Your task to perform on an android device: turn on the 12-hour format for clock Image 0: 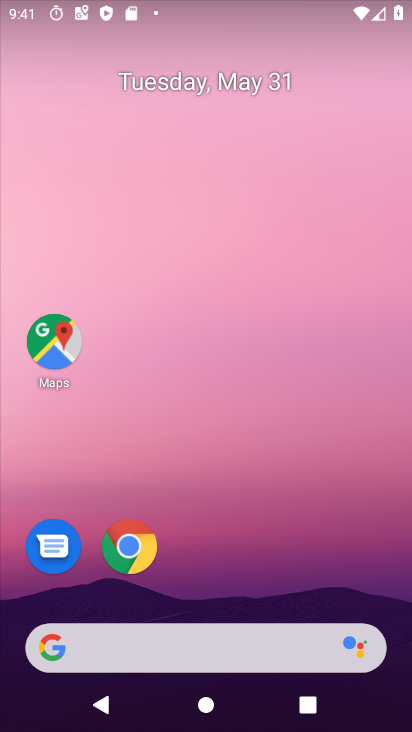
Step 0: drag from (209, 574) to (256, 73)
Your task to perform on an android device: turn on the 12-hour format for clock Image 1: 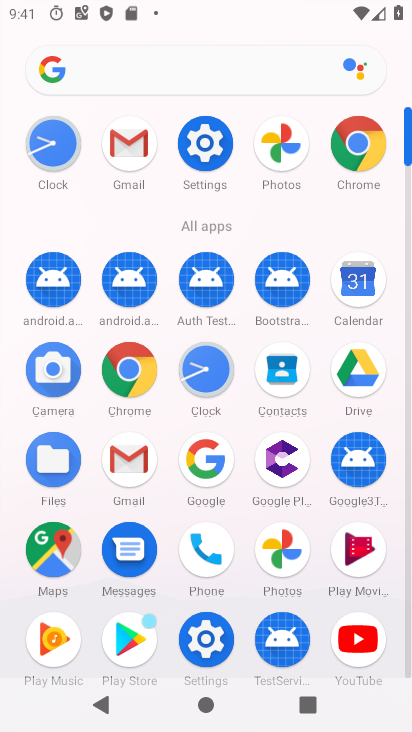
Step 1: click (201, 378)
Your task to perform on an android device: turn on the 12-hour format for clock Image 2: 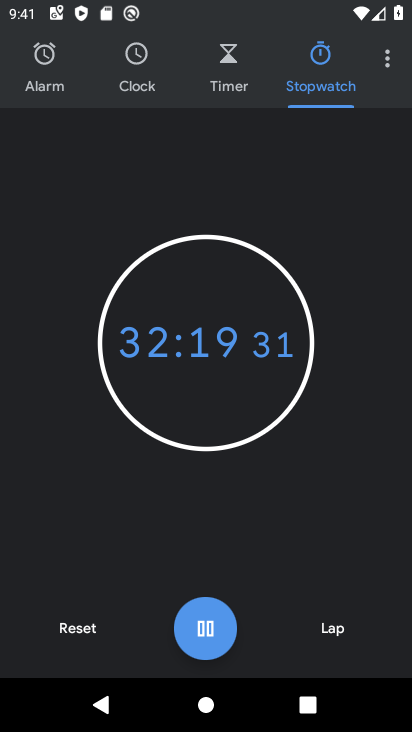
Step 2: click (394, 52)
Your task to perform on an android device: turn on the 12-hour format for clock Image 3: 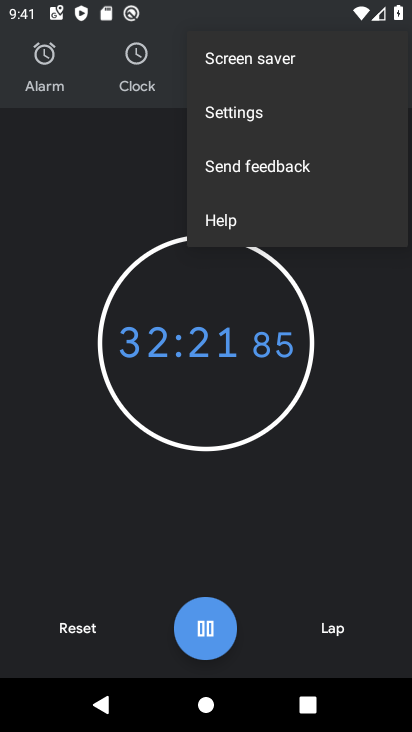
Step 3: click (245, 122)
Your task to perform on an android device: turn on the 12-hour format for clock Image 4: 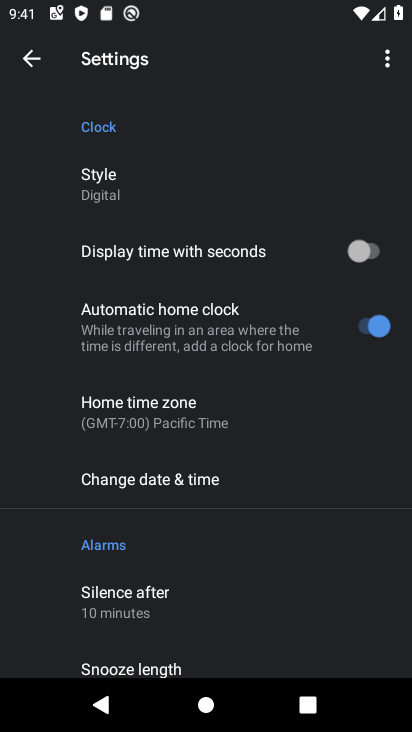
Step 4: click (187, 479)
Your task to perform on an android device: turn on the 12-hour format for clock Image 5: 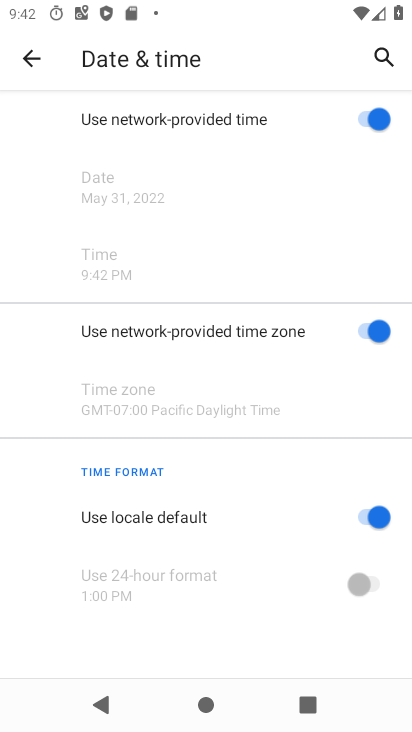
Step 5: task complete